Your task to perform on an android device: delete browsing data in the chrome app Image 0: 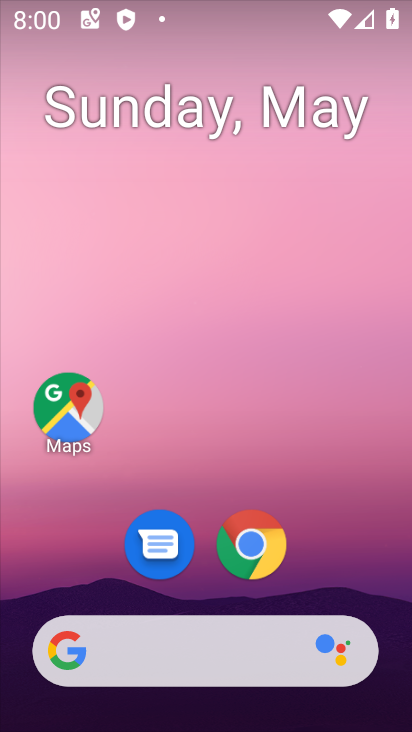
Step 0: drag from (332, 579) to (273, 45)
Your task to perform on an android device: delete browsing data in the chrome app Image 1: 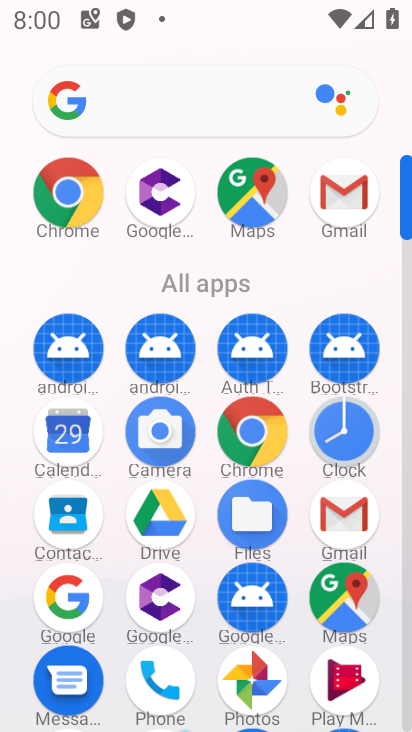
Step 1: drag from (0, 582) to (5, 280)
Your task to perform on an android device: delete browsing data in the chrome app Image 2: 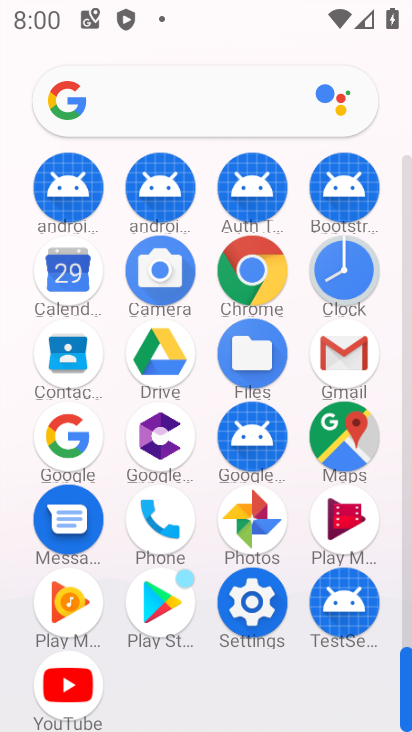
Step 2: click (250, 264)
Your task to perform on an android device: delete browsing data in the chrome app Image 3: 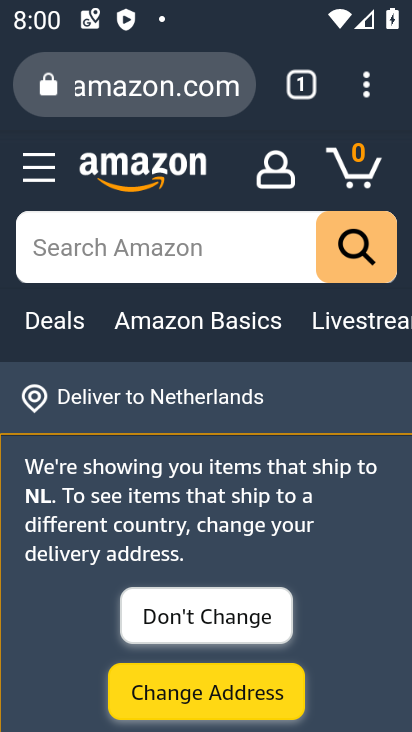
Step 3: drag from (362, 85) to (100, 473)
Your task to perform on an android device: delete browsing data in the chrome app Image 4: 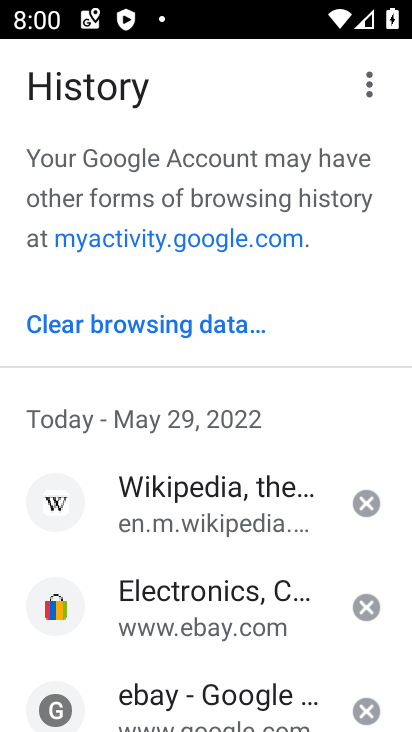
Step 4: click (136, 329)
Your task to perform on an android device: delete browsing data in the chrome app Image 5: 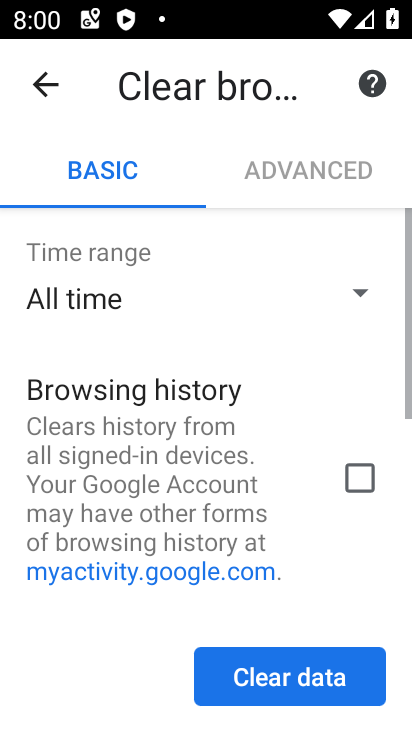
Step 5: drag from (200, 542) to (225, 228)
Your task to perform on an android device: delete browsing data in the chrome app Image 6: 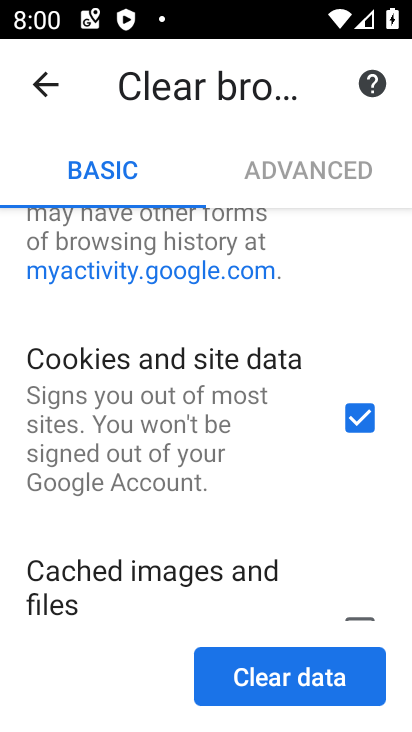
Step 6: drag from (217, 315) to (221, 539)
Your task to perform on an android device: delete browsing data in the chrome app Image 7: 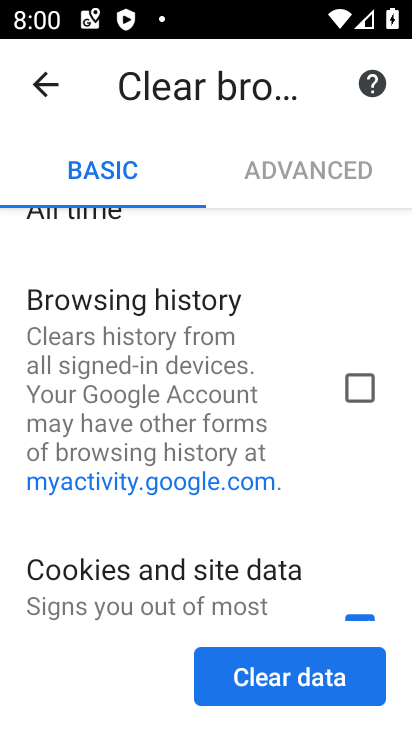
Step 7: click (355, 252)
Your task to perform on an android device: delete browsing data in the chrome app Image 8: 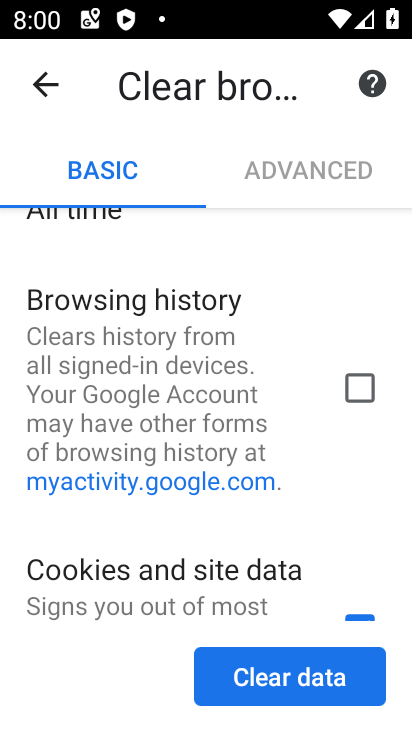
Step 8: click (354, 388)
Your task to perform on an android device: delete browsing data in the chrome app Image 9: 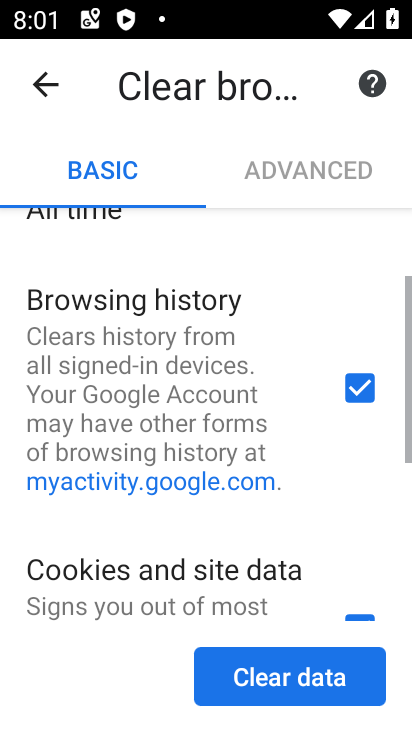
Step 9: drag from (279, 495) to (295, 237)
Your task to perform on an android device: delete browsing data in the chrome app Image 10: 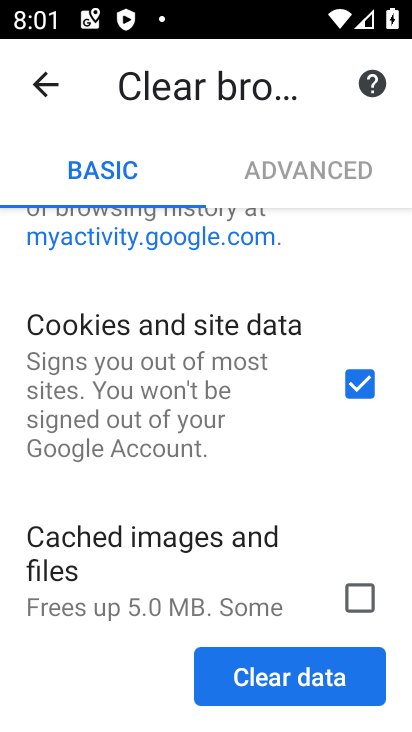
Step 10: click (365, 385)
Your task to perform on an android device: delete browsing data in the chrome app Image 11: 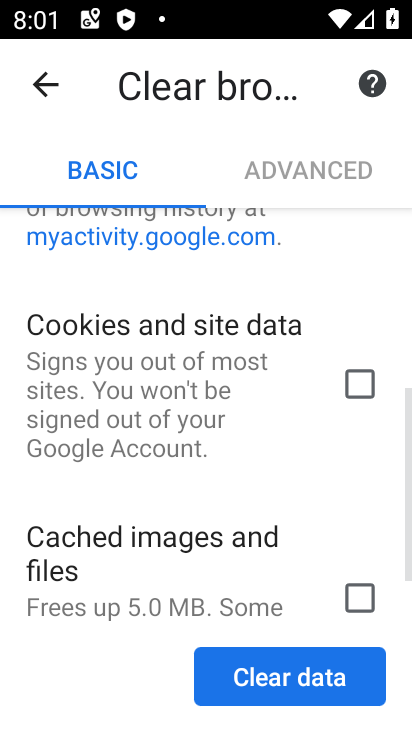
Step 11: click (282, 661)
Your task to perform on an android device: delete browsing data in the chrome app Image 12: 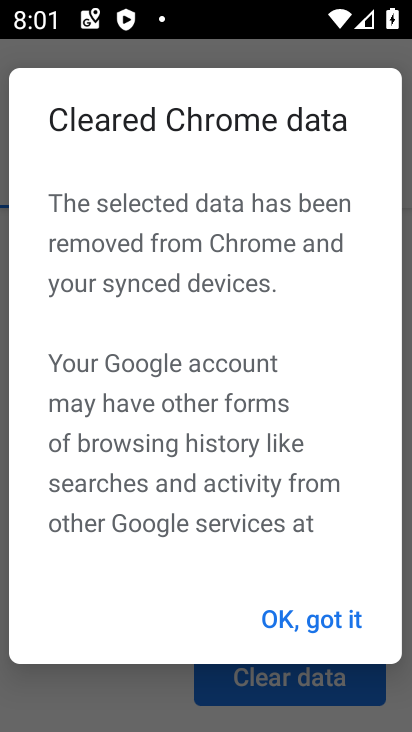
Step 12: click (285, 615)
Your task to perform on an android device: delete browsing data in the chrome app Image 13: 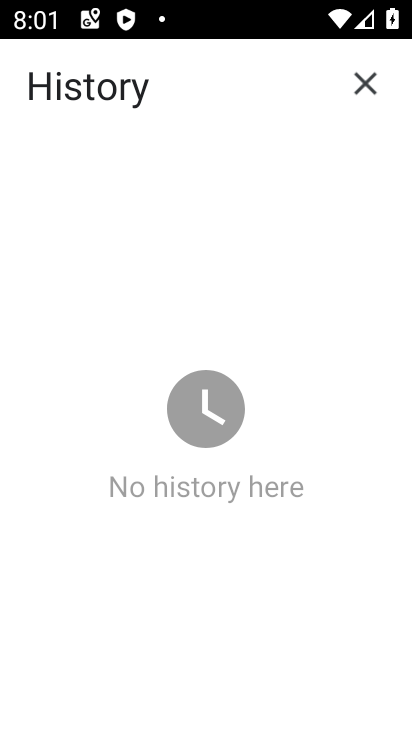
Step 13: task complete